Your task to perform on an android device: Open Wikipedia Image 0: 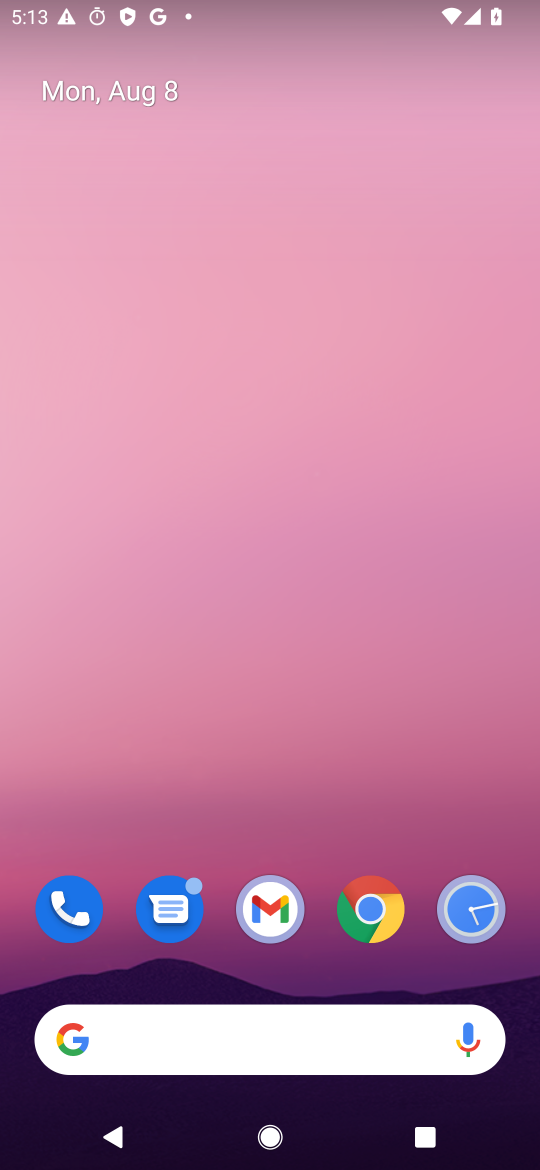
Step 0: click (382, 916)
Your task to perform on an android device: Open Wikipedia Image 1: 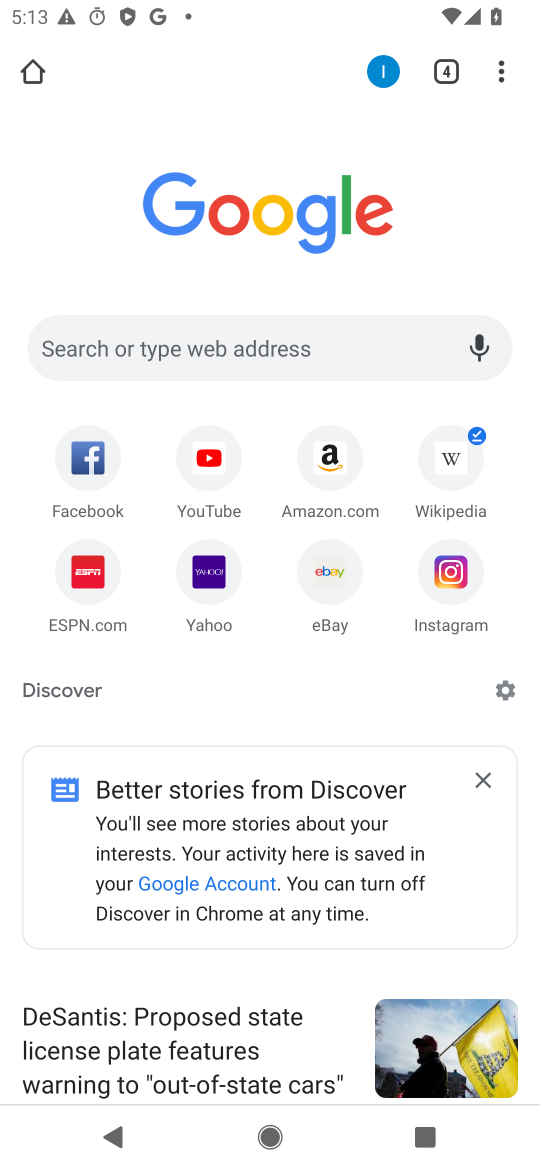
Step 1: click (452, 475)
Your task to perform on an android device: Open Wikipedia Image 2: 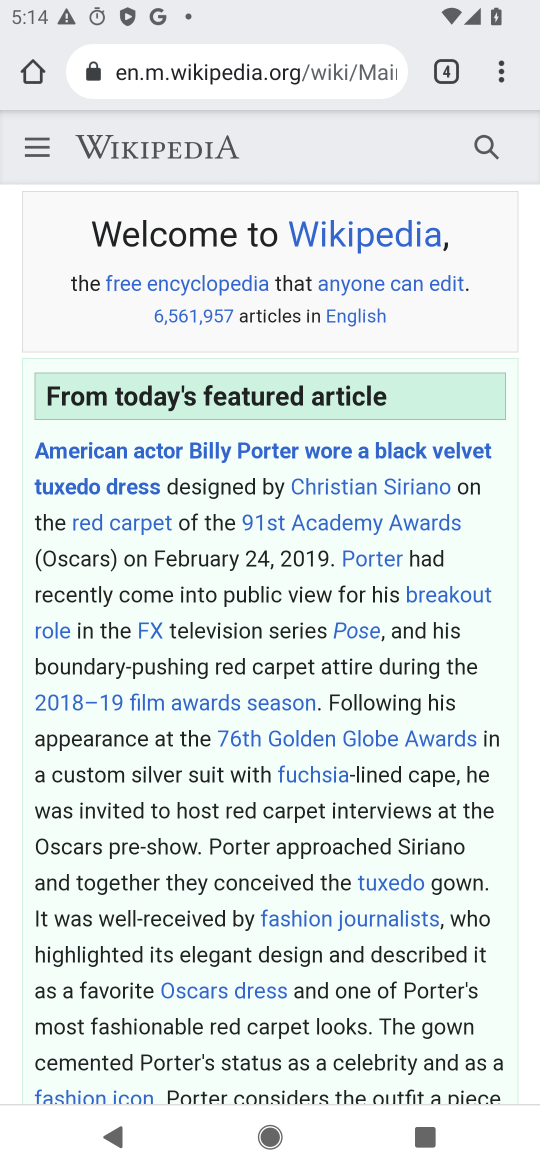
Step 2: task complete